Your task to perform on an android device: Open Amazon Image 0: 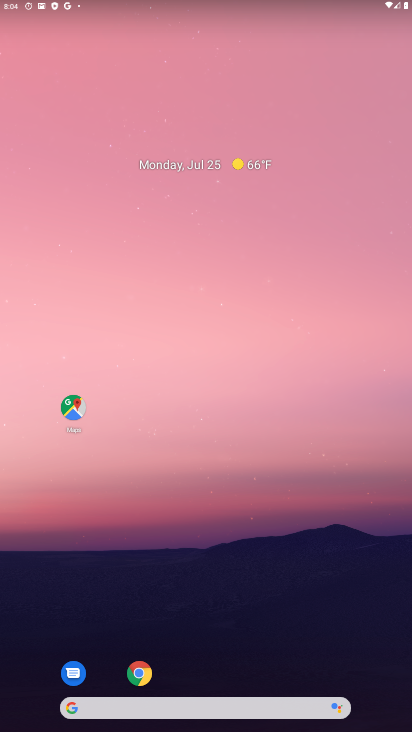
Step 0: drag from (173, 647) to (184, 160)
Your task to perform on an android device: Open Amazon Image 1: 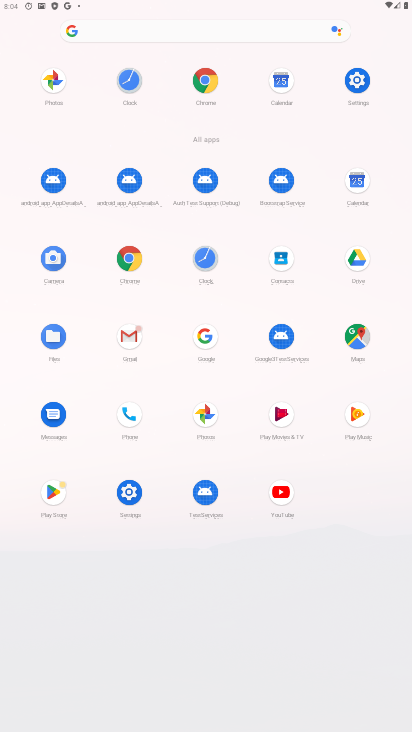
Step 1: click (128, 254)
Your task to perform on an android device: Open Amazon Image 2: 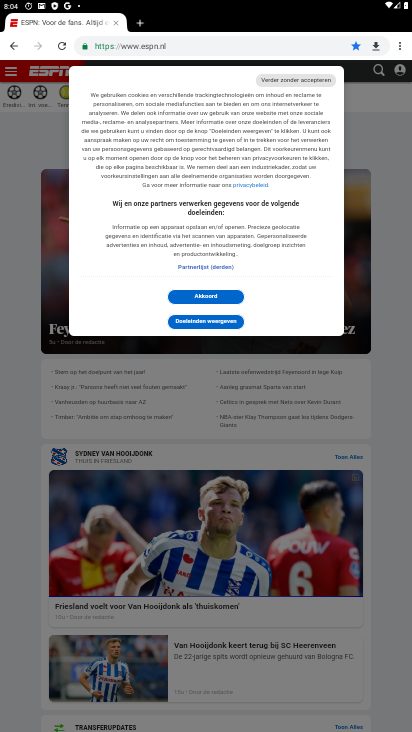
Step 2: click (137, 17)
Your task to perform on an android device: Open Amazon Image 3: 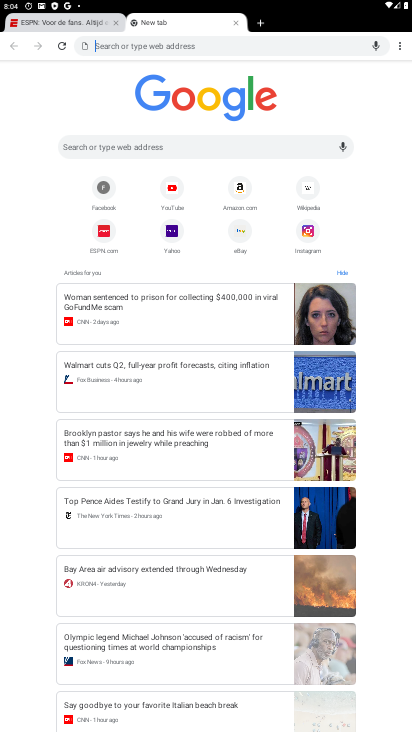
Step 3: click (242, 190)
Your task to perform on an android device: Open Amazon Image 4: 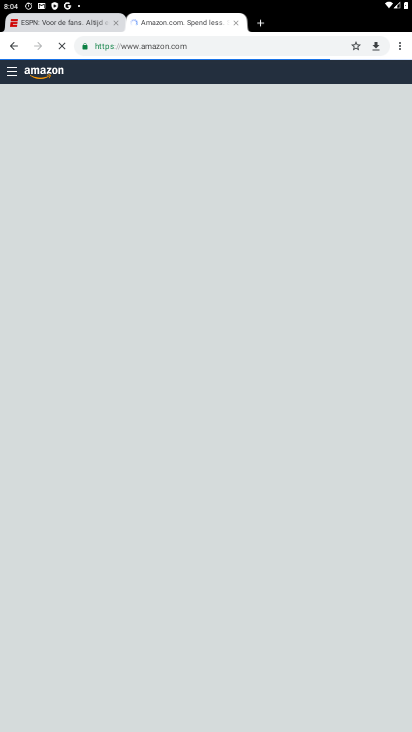
Step 4: task complete